Your task to perform on an android device: turn on notifications settings in the gmail app Image 0: 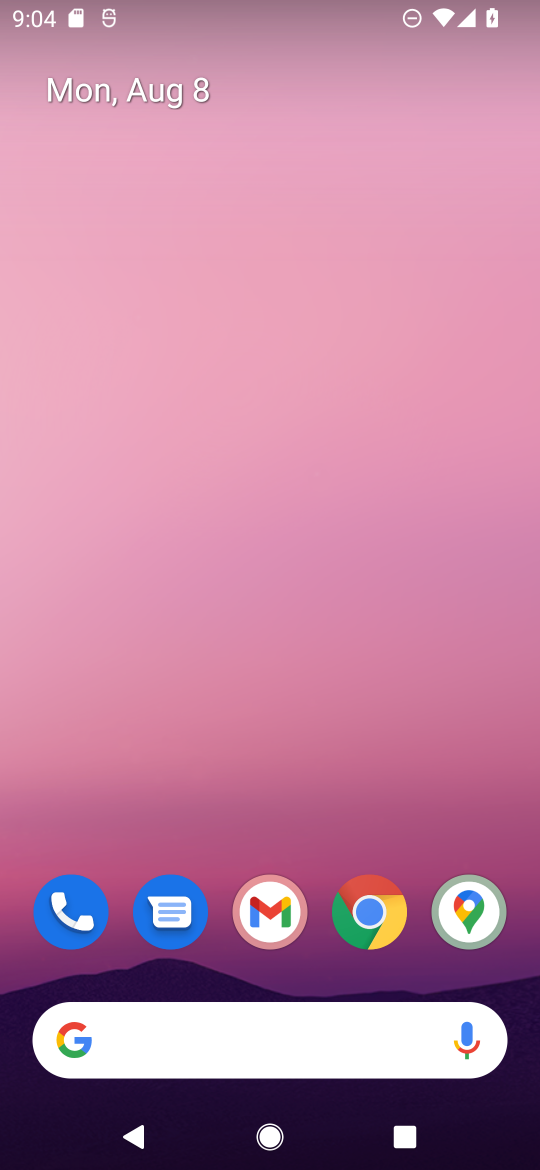
Step 0: drag from (518, 927) to (344, 9)
Your task to perform on an android device: turn on notifications settings in the gmail app Image 1: 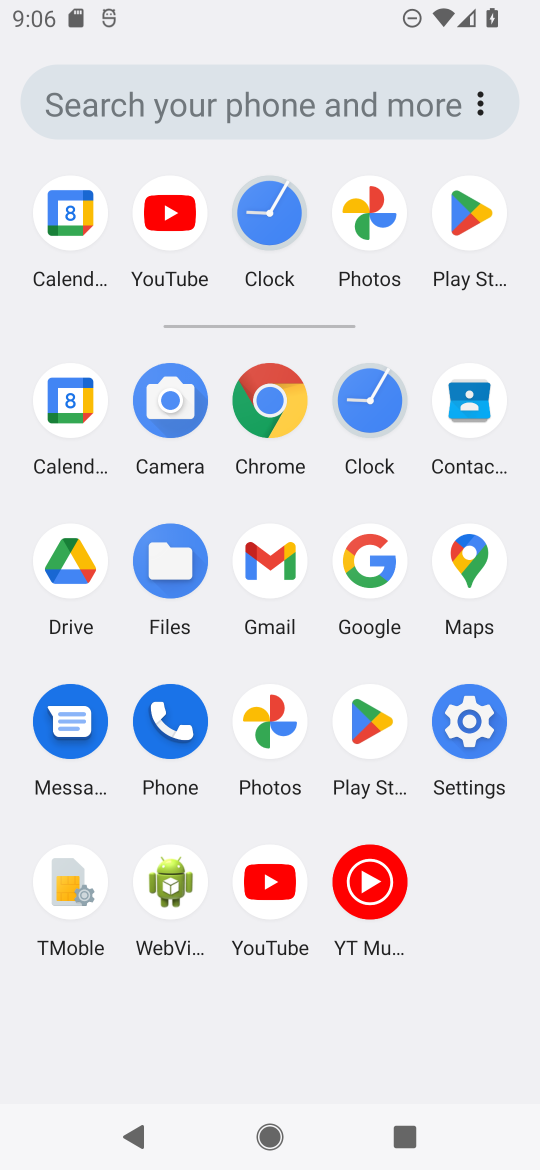
Step 1: click (284, 550)
Your task to perform on an android device: turn on notifications settings in the gmail app Image 2: 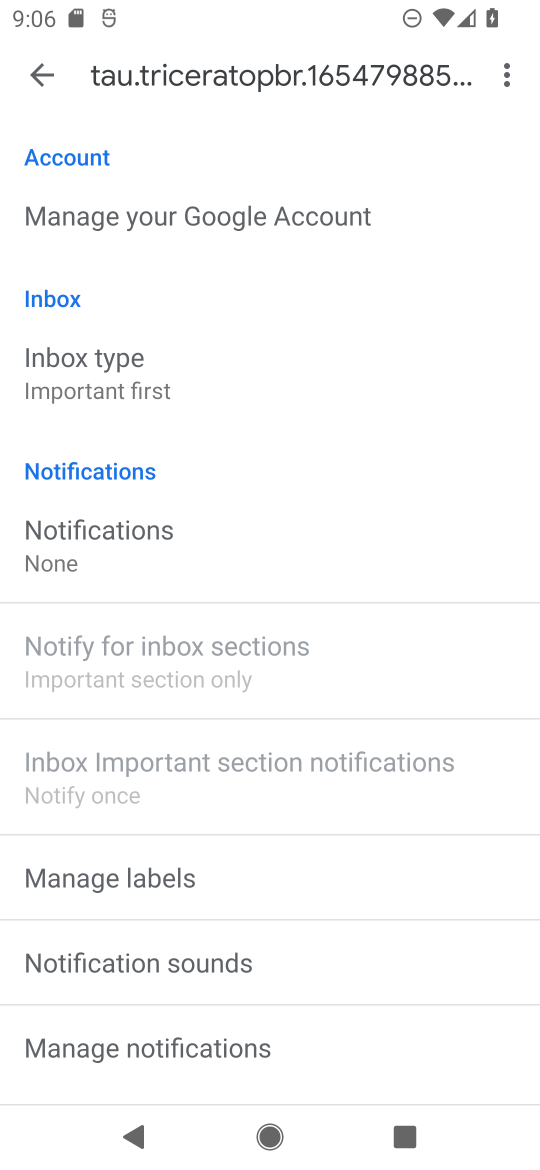
Step 2: click (113, 565)
Your task to perform on an android device: turn on notifications settings in the gmail app Image 3: 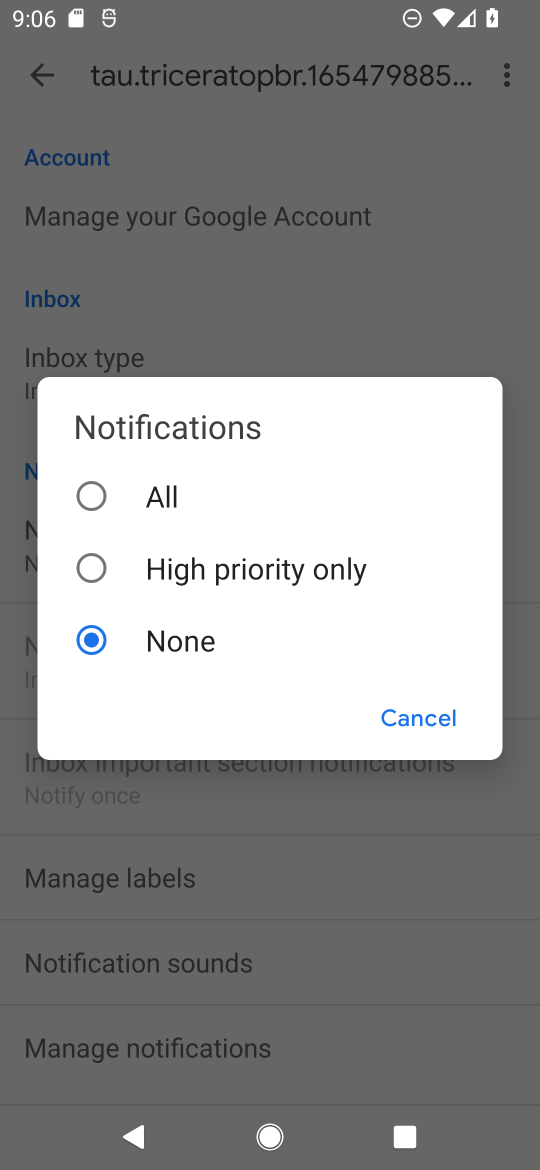
Step 3: click (79, 503)
Your task to perform on an android device: turn on notifications settings in the gmail app Image 4: 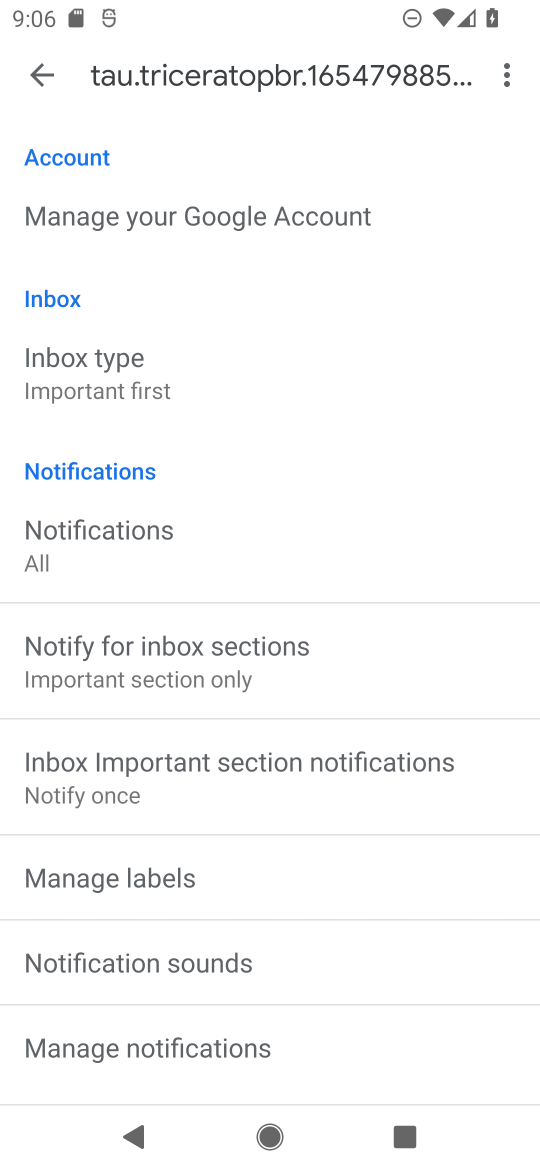
Step 4: task complete